Your task to perform on an android device: Go to ESPN.com Image 0: 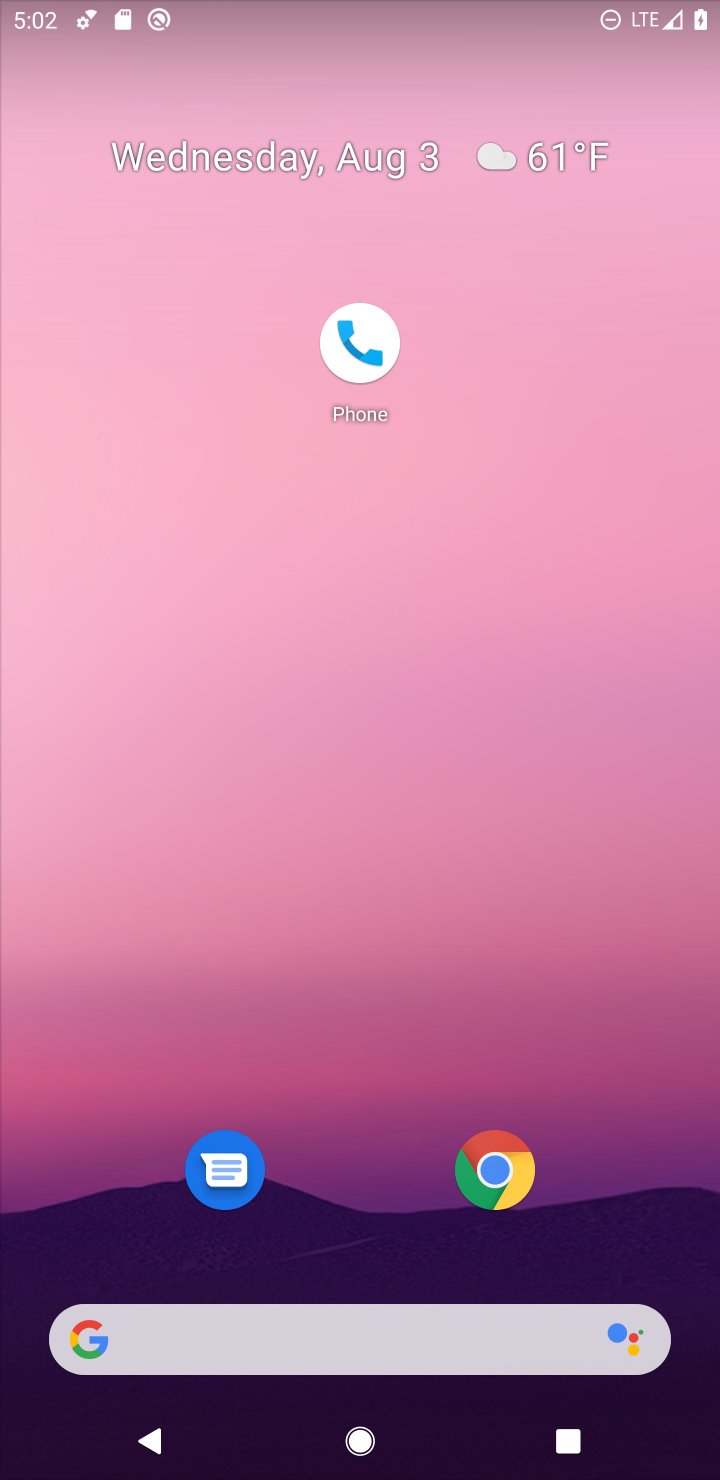
Step 0: click (507, 1176)
Your task to perform on an android device: Go to ESPN.com Image 1: 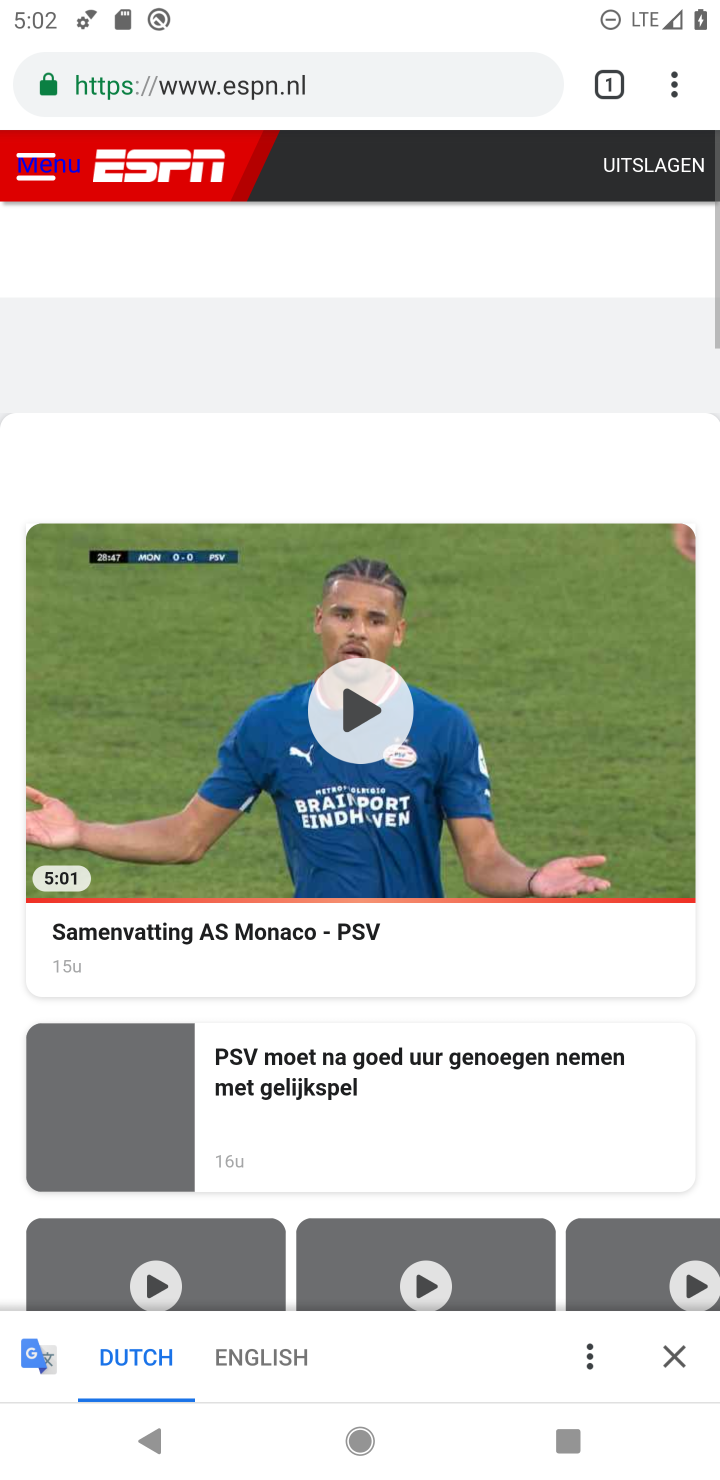
Step 1: task complete